Your task to perform on an android device: Go to Amazon Image 0: 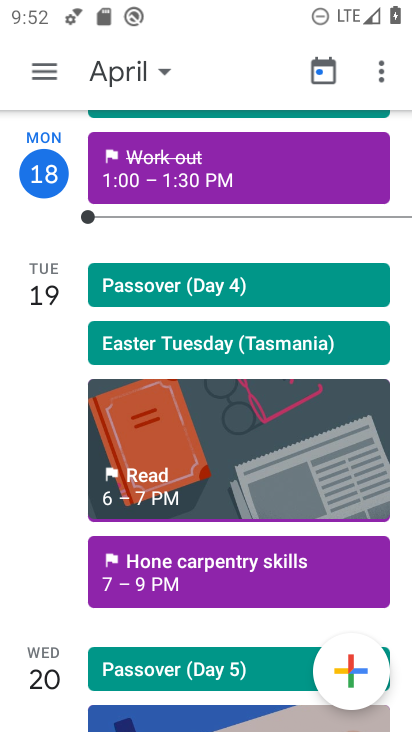
Step 0: press home button
Your task to perform on an android device: Go to Amazon Image 1: 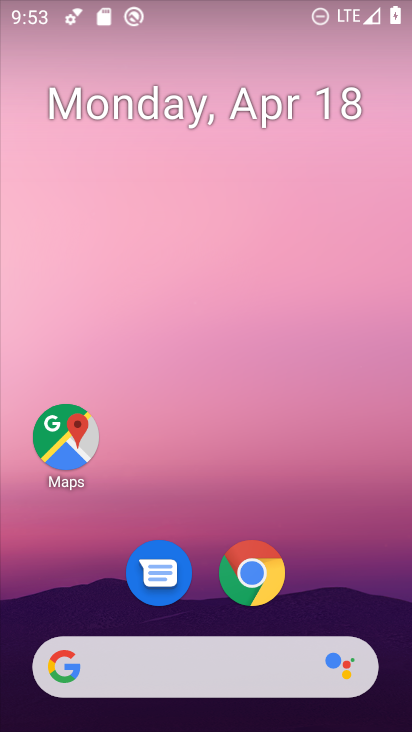
Step 1: click (265, 585)
Your task to perform on an android device: Go to Amazon Image 2: 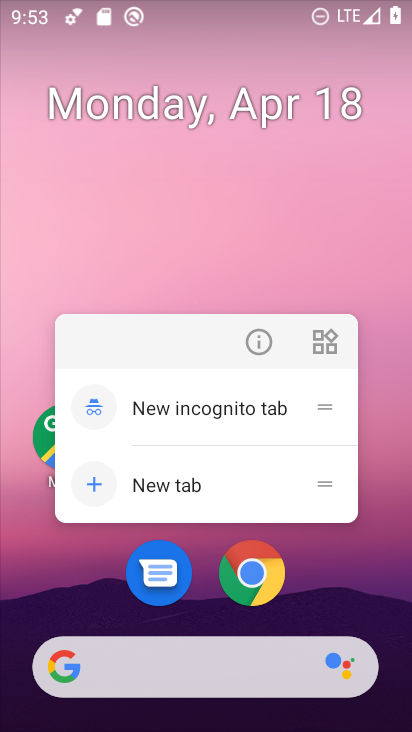
Step 2: click (265, 584)
Your task to perform on an android device: Go to Amazon Image 3: 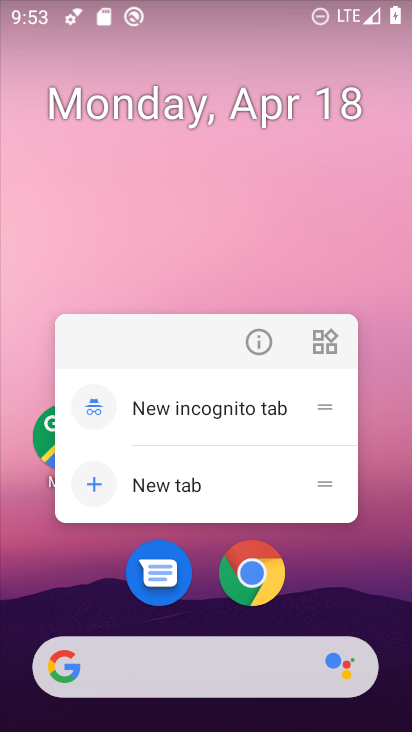
Step 3: click (265, 584)
Your task to perform on an android device: Go to Amazon Image 4: 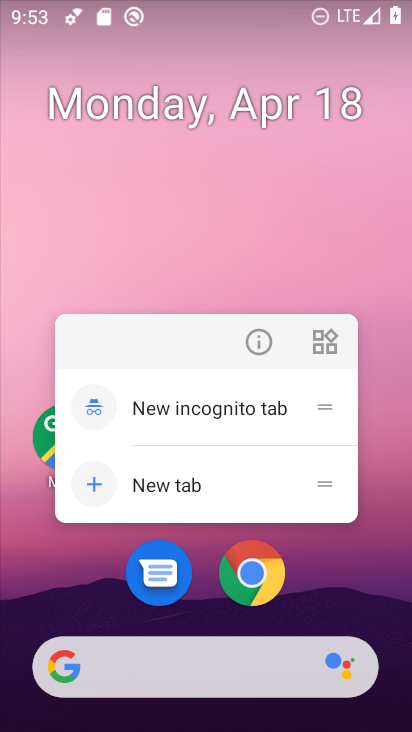
Step 4: click (266, 573)
Your task to perform on an android device: Go to Amazon Image 5: 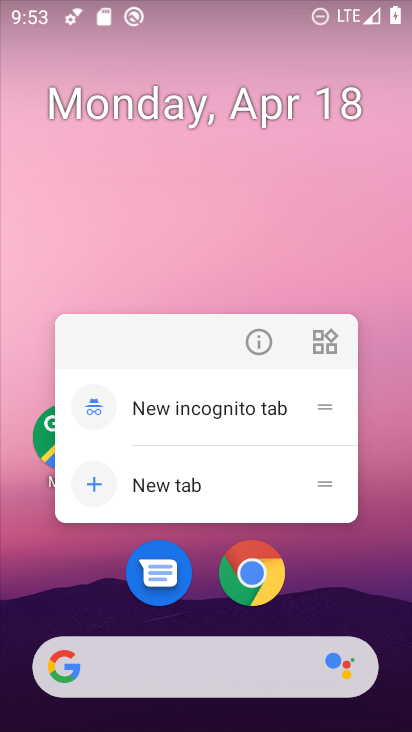
Step 5: click (266, 573)
Your task to perform on an android device: Go to Amazon Image 6: 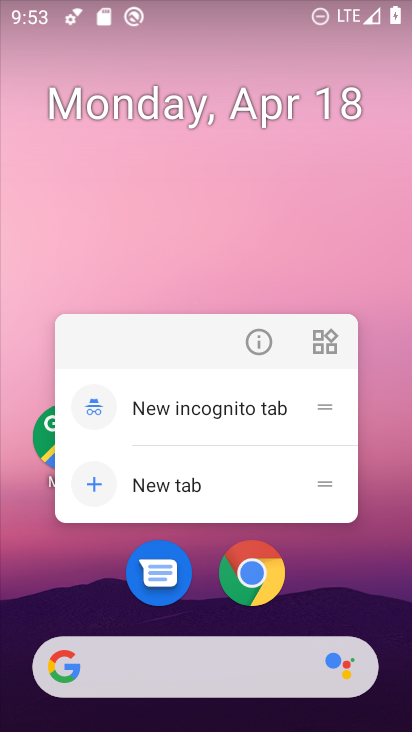
Step 6: click (267, 569)
Your task to perform on an android device: Go to Amazon Image 7: 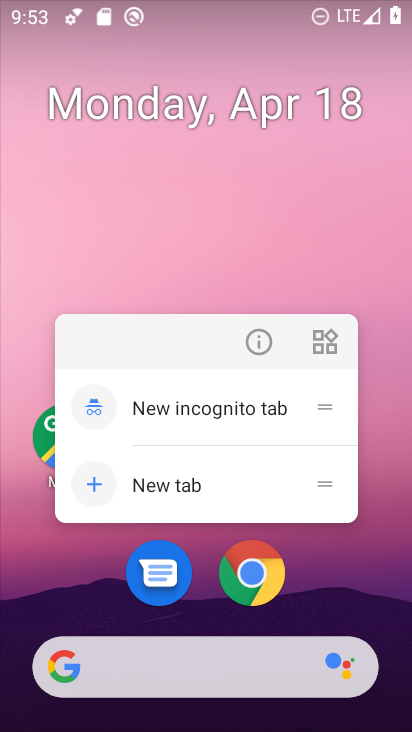
Step 7: click (267, 569)
Your task to perform on an android device: Go to Amazon Image 8: 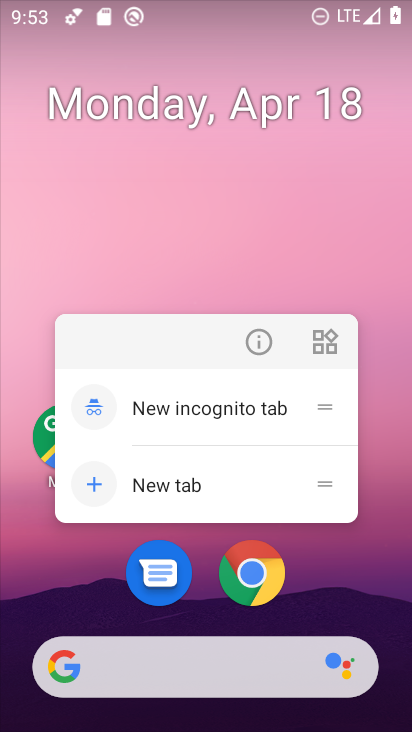
Step 8: click (267, 569)
Your task to perform on an android device: Go to Amazon Image 9: 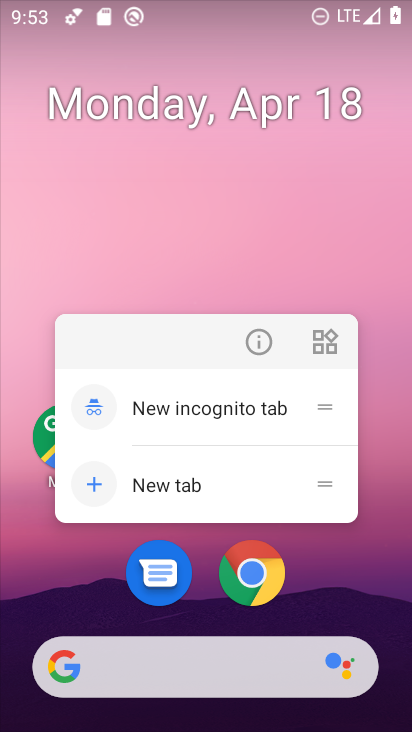
Step 9: click (270, 564)
Your task to perform on an android device: Go to Amazon Image 10: 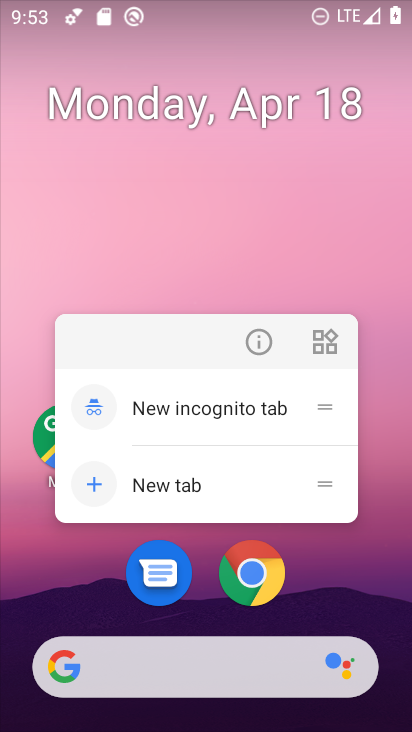
Step 10: click (270, 564)
Your task to perform on an android device: Go to Amazon Image 11: 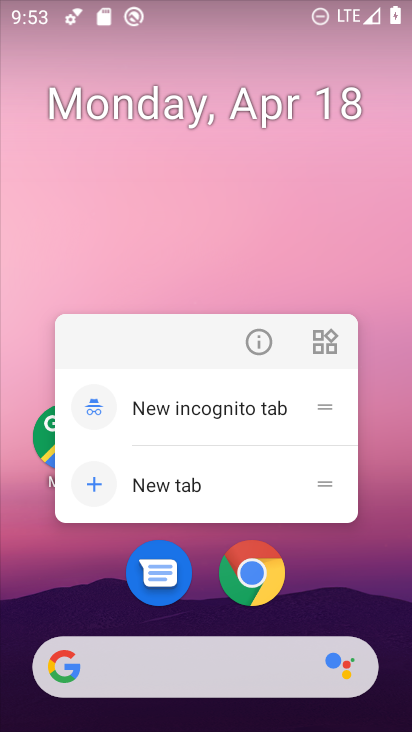
Step 11: click (270, 561)
Your task to perform on an android device: Go to Amazon Image 12: 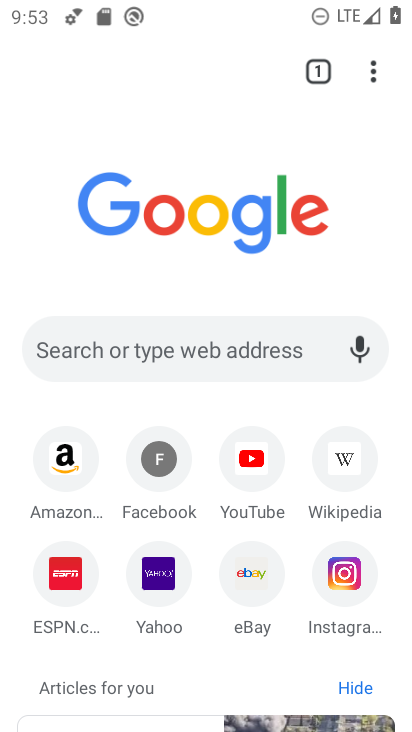
Step 12: click (62, 471)
Your task to perform on an android device: Go to Amazon Image 13: 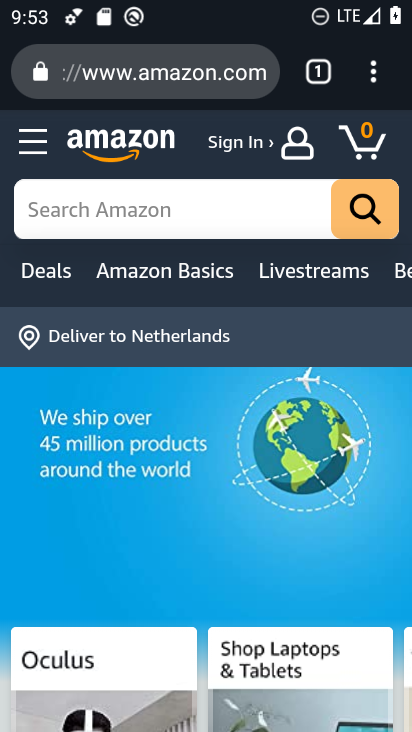
Step 13: task complete